Your task to perform on an android device: turn off priority inbox in the gmail app Image 0: 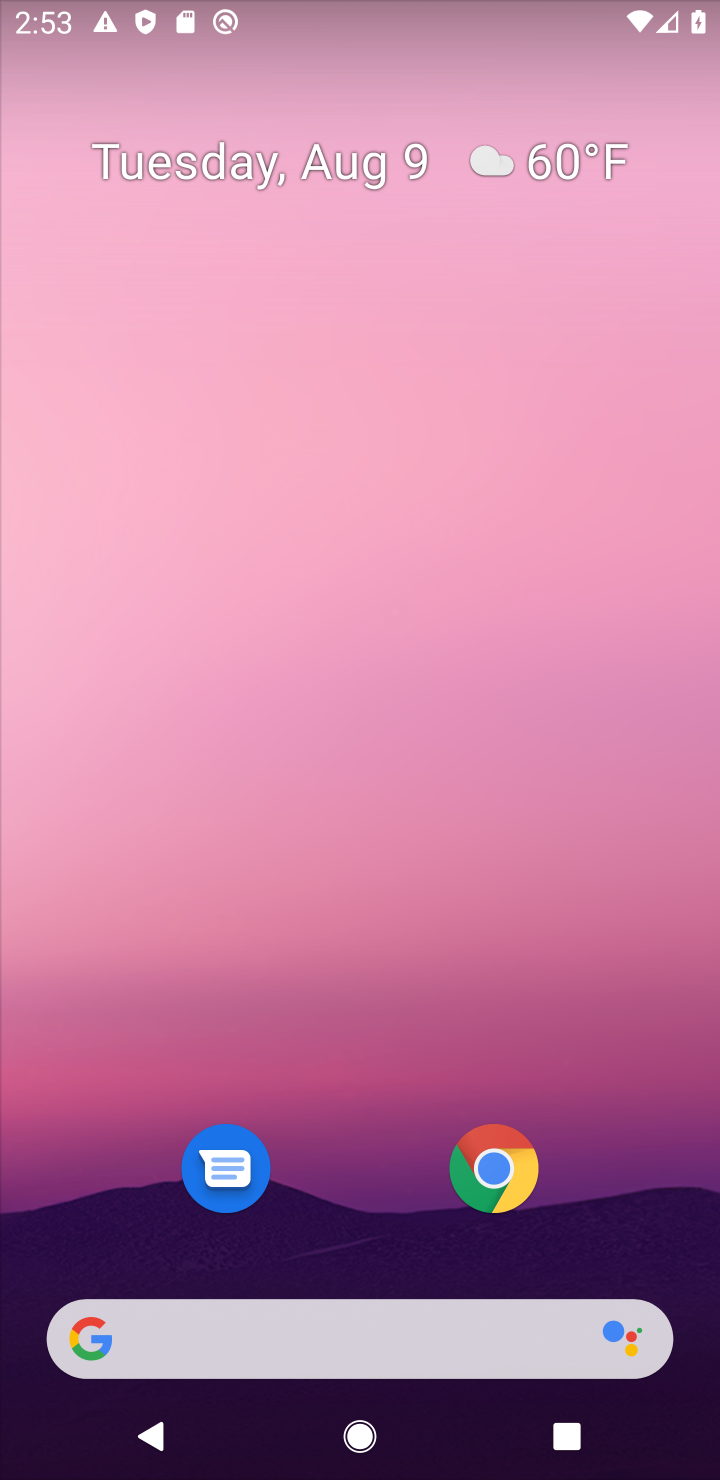
Step 0: drag from (336, 1196) to (104, 149)
Your task to perform on an android device: turn off priority inbox in the gmail app Image 1: 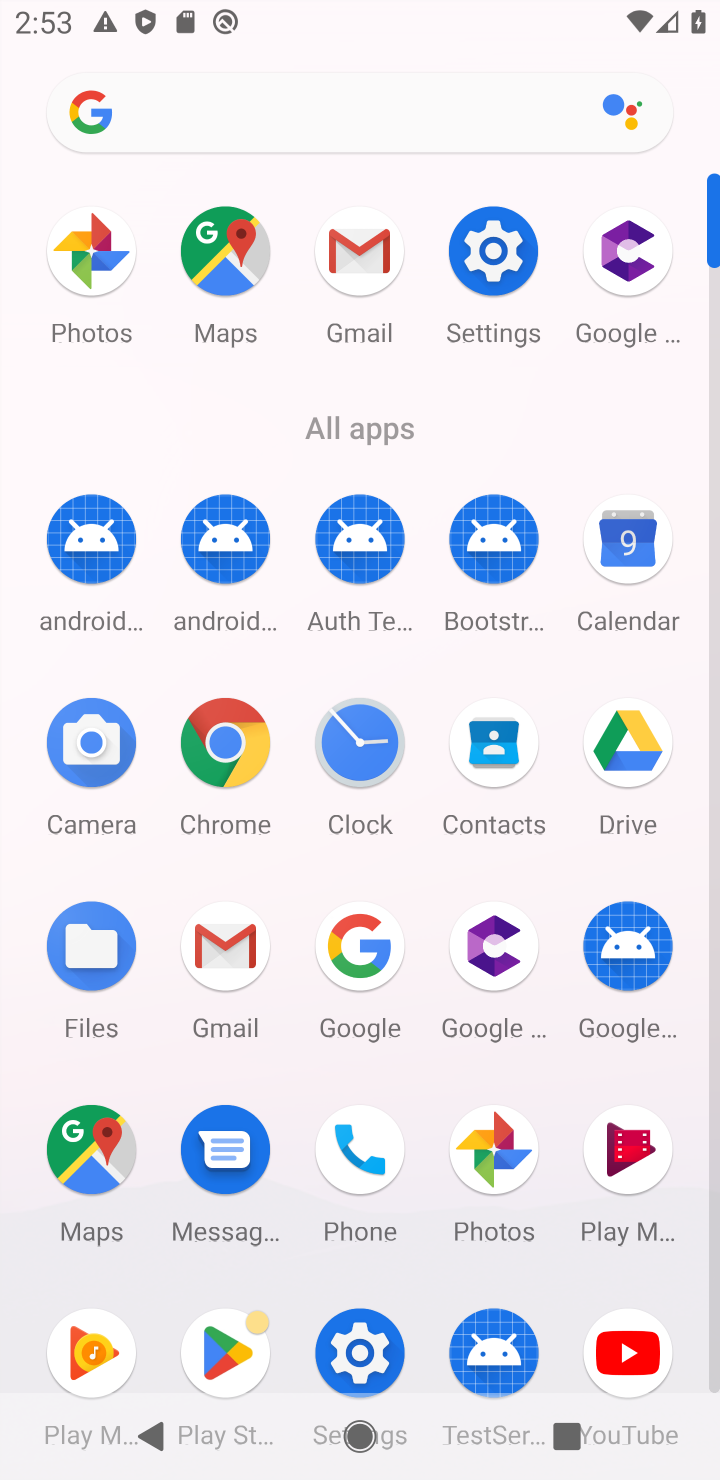
Step 1: click (228, 953)
Your task to perform on an android device: turn off priority inbox in the gmail app Image 2: 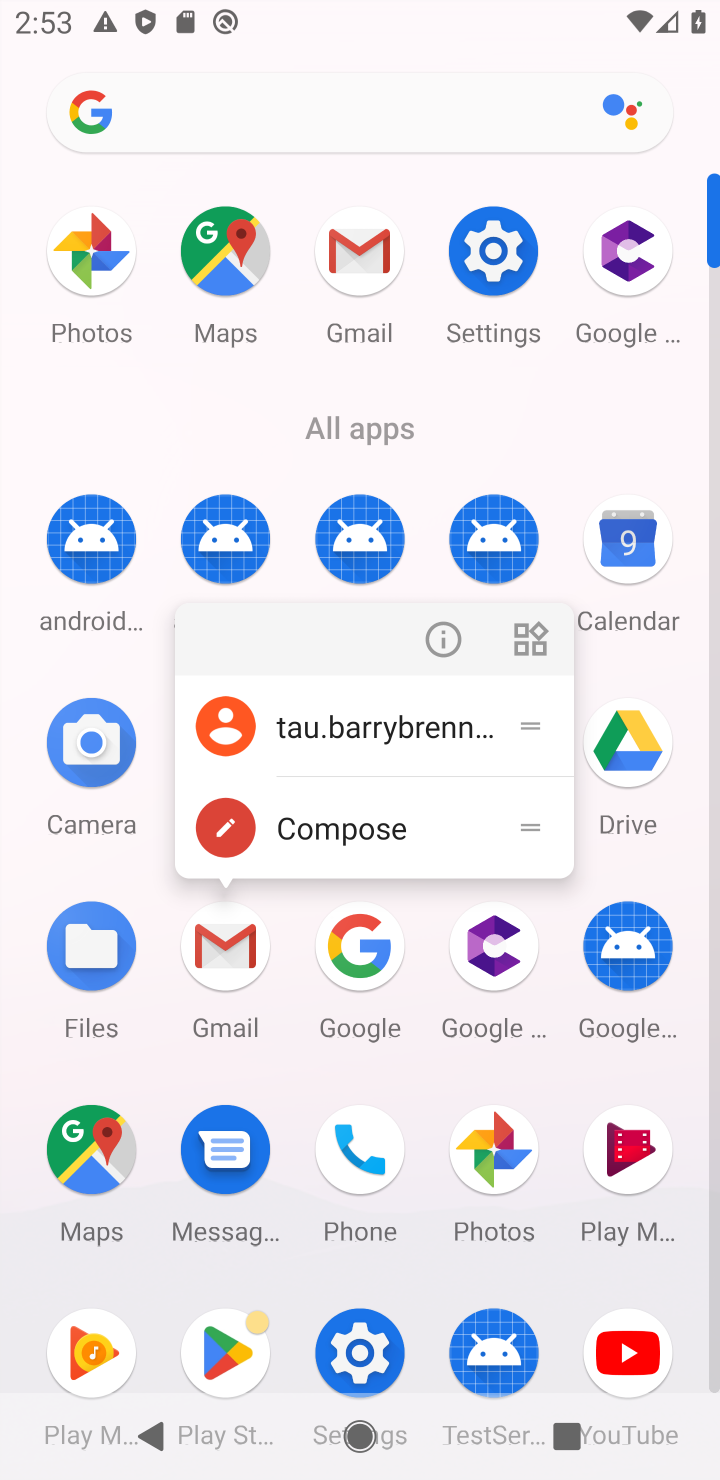
Step 2: click (253, 935)
Your task to perform on an android device: turn off priority inbox in the gmail app Image 3: 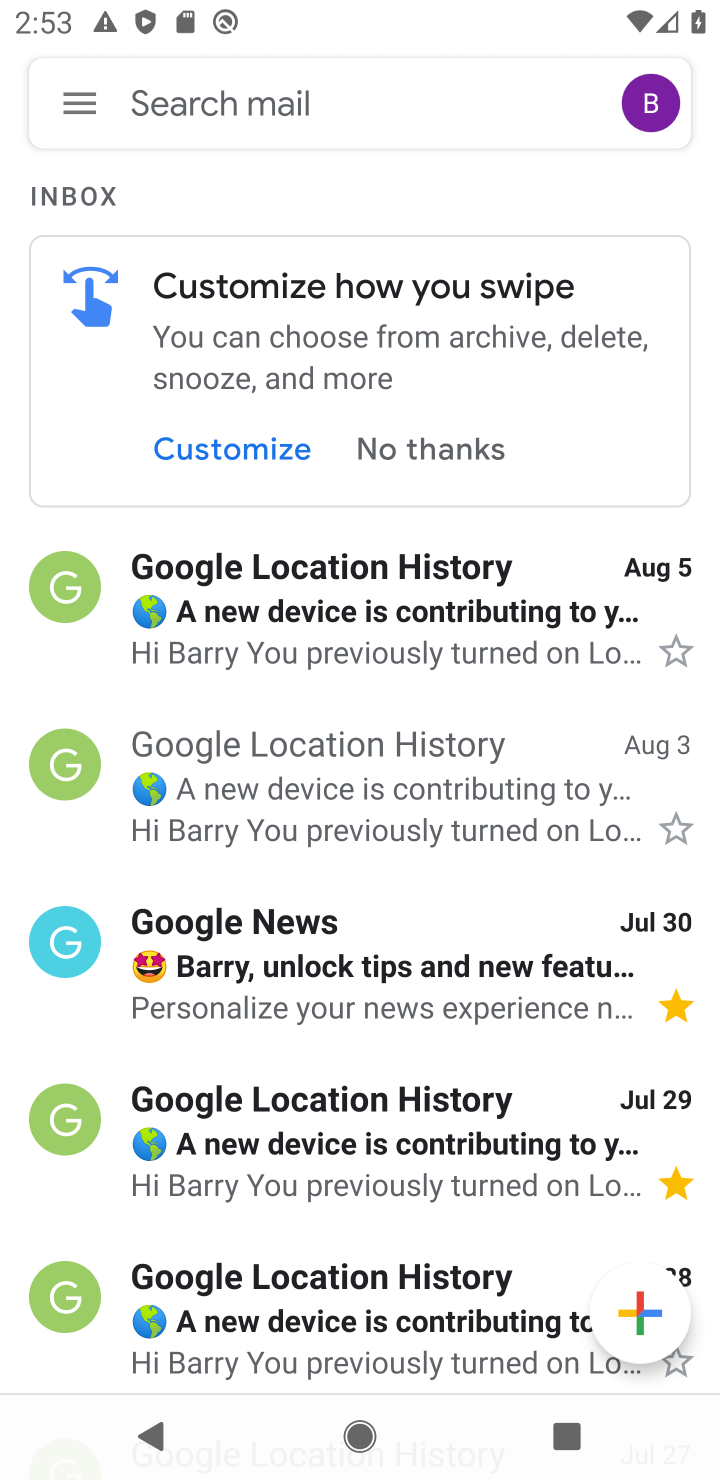
Step 3: click (74, 115)
Your task to perform on an android device: turn off priority inbox in the gmail app Image 4: 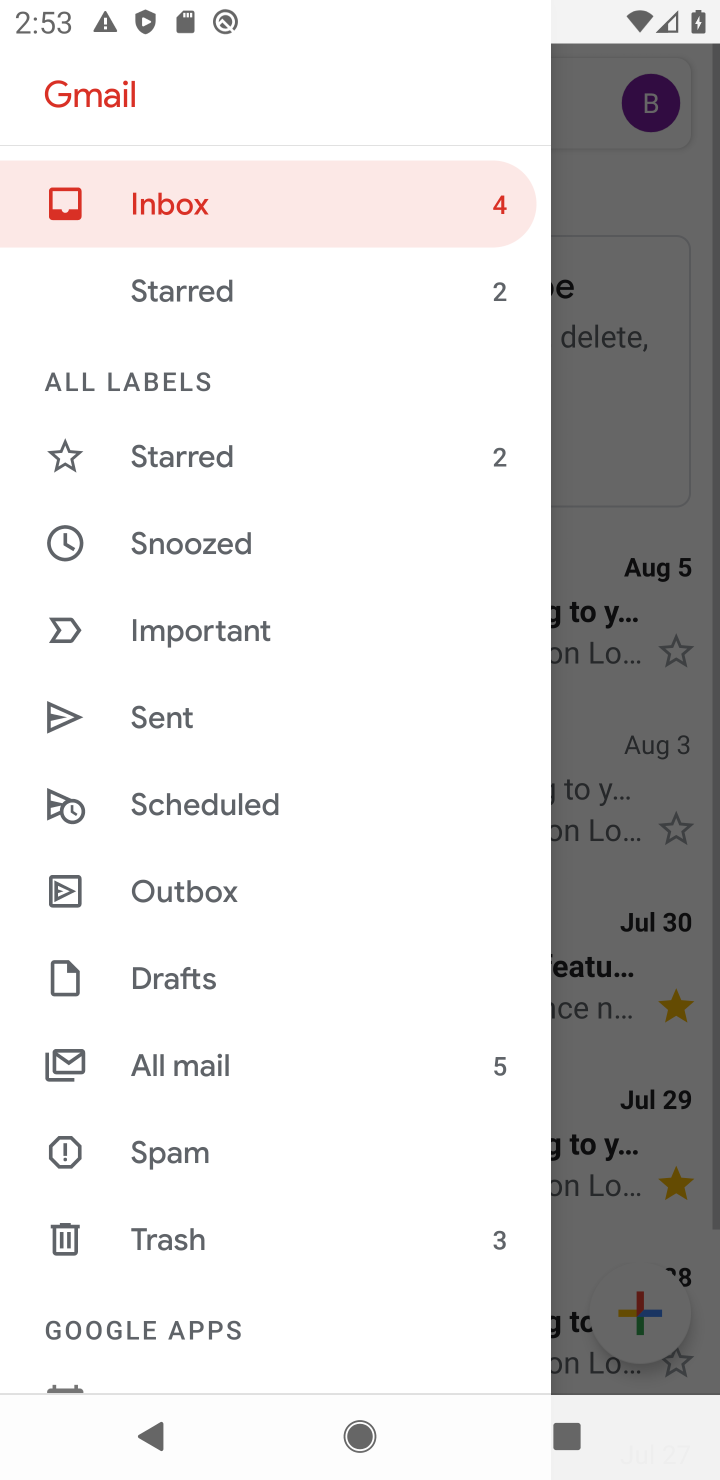
Step 4: drag from (286, 1215) to (292, 584)
Your task to perform on an android device: turn off priority inbox in the gmail app Image 5: 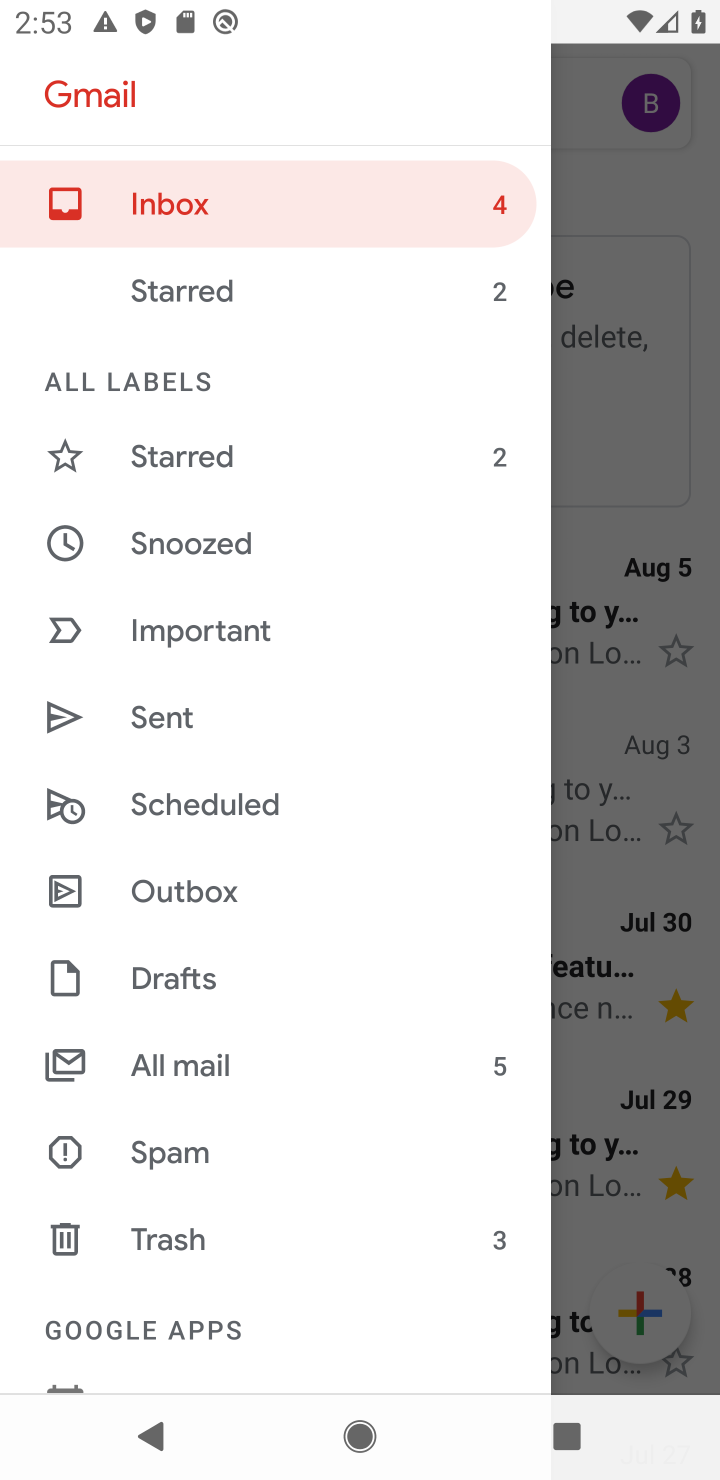
Step 5: drag from (271, 1263) to (154, 537)
Your task to perform on an android device: turn off priority inbox in the gmail app Image 6: 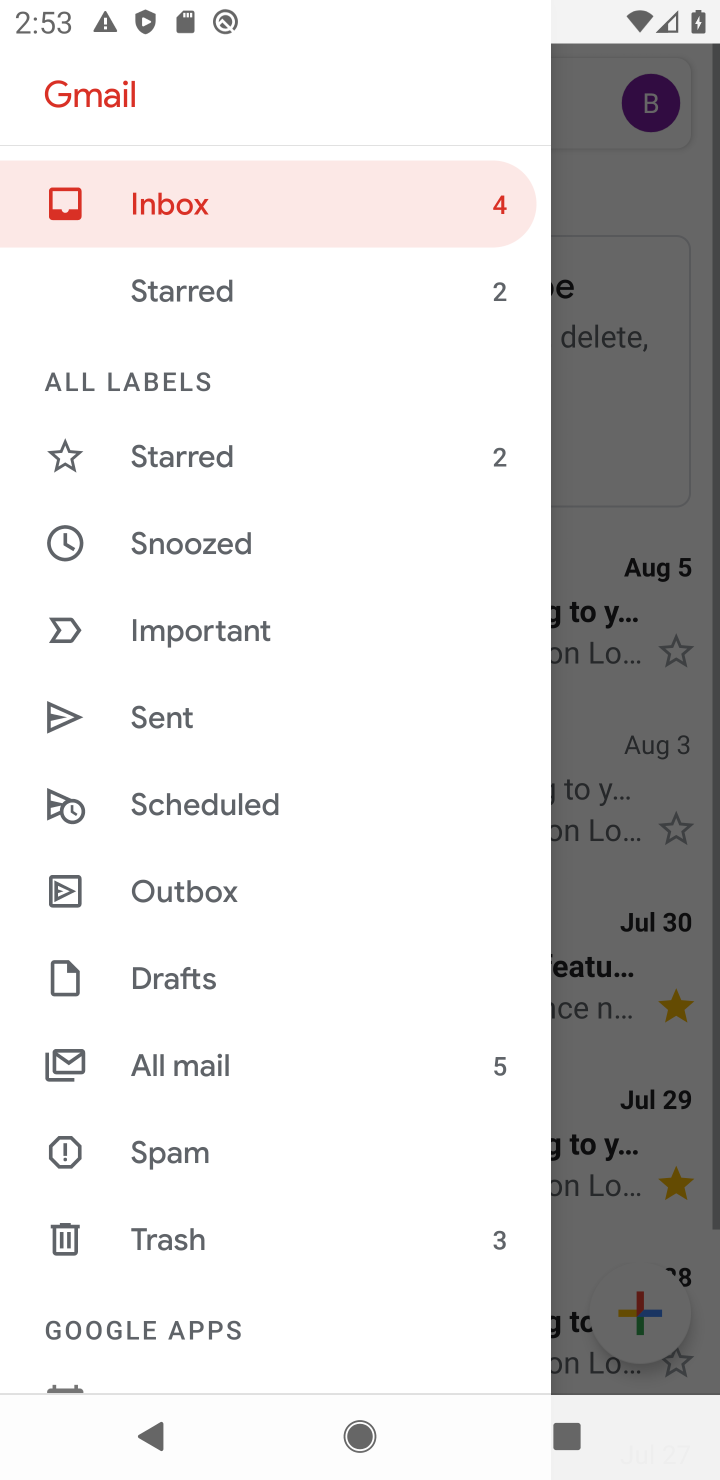
Step 6: drag from (152, 1267) to (157, 82)
Your task to perform on an android device: turn off priority inbox in the gmail app Image 7: 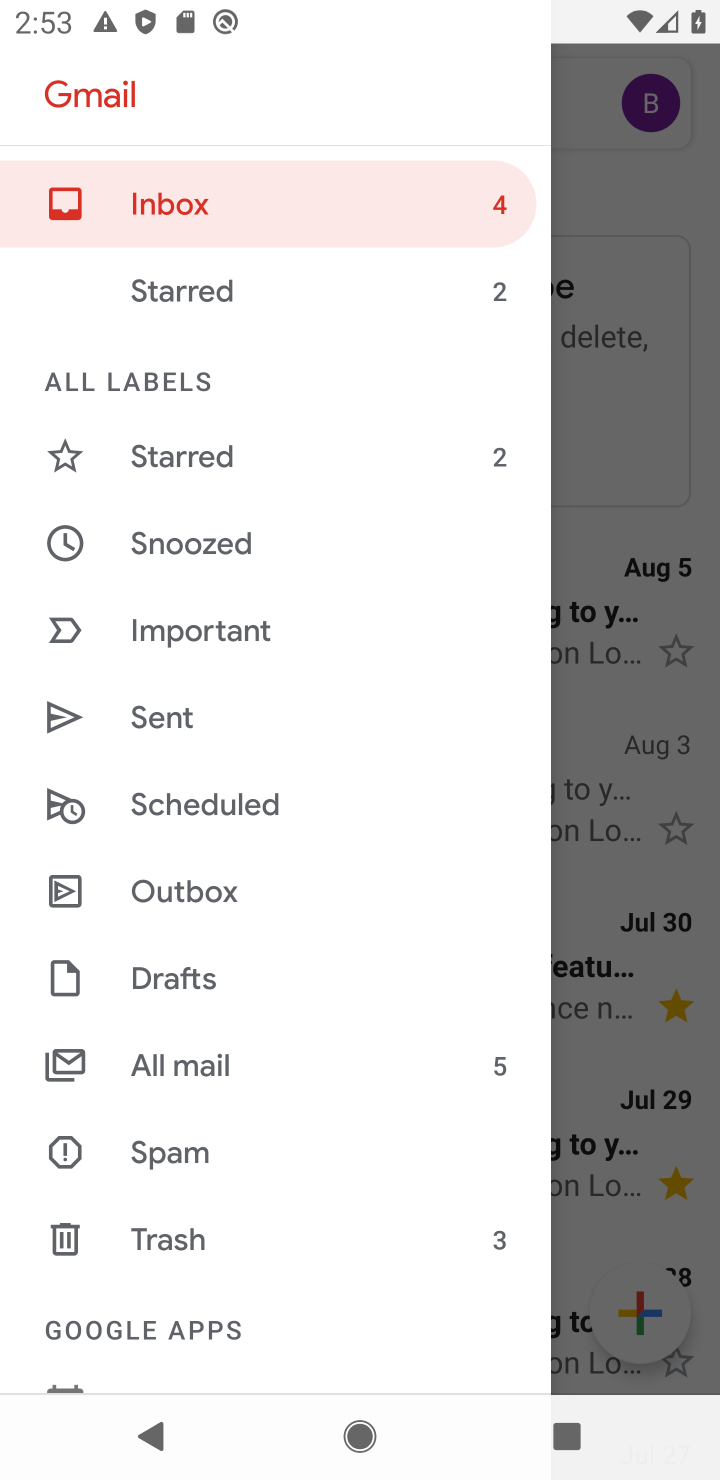
Step 7: drag from (231, 1143) to (279, 387)
Your task to perform on an android device: turn off priority inbox in the gmail app Image 8: 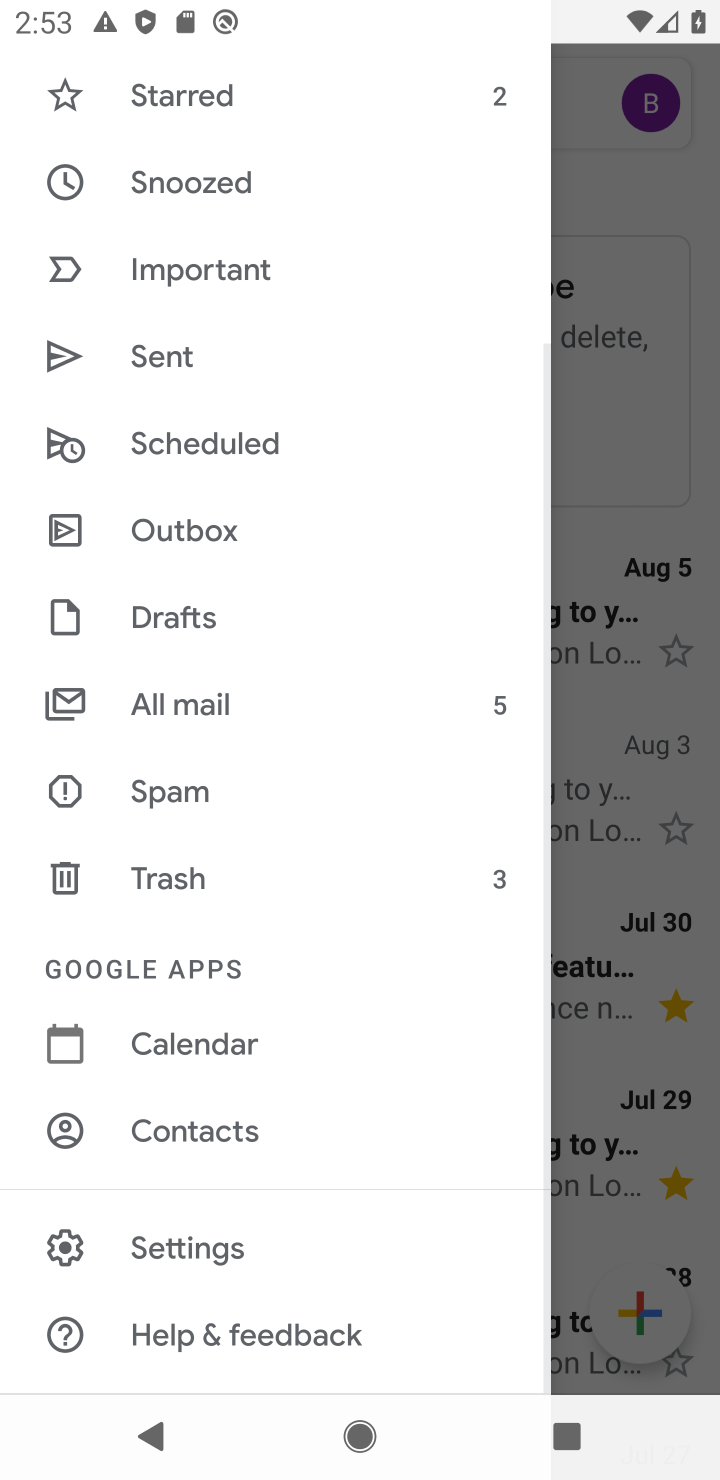
Step 8: click (185, 1229)
Your task to perform on an android device: turn off priority inbox in the gmail app Image 9: 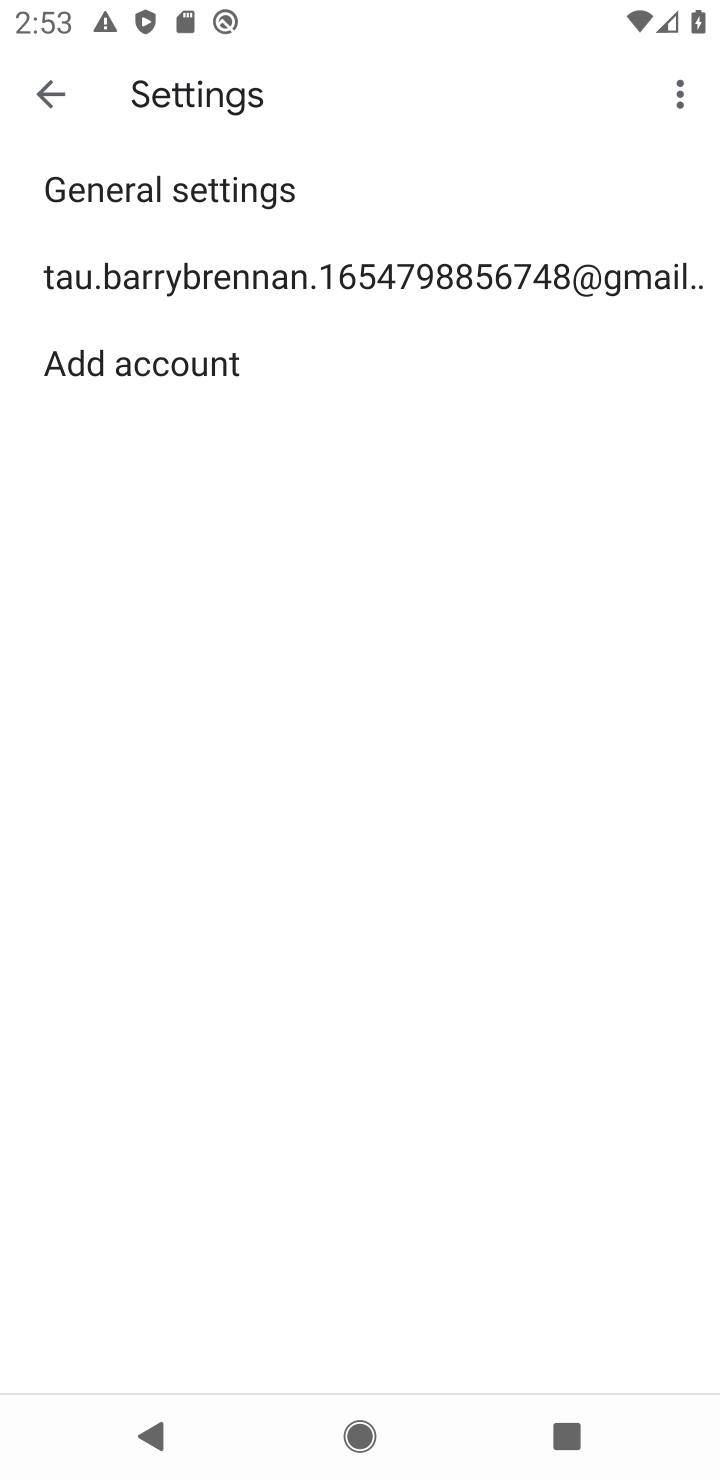
Step 9: click (487, 284)
Your task to perform on an android device: turn off priority inbox in the gmail app Image 10: 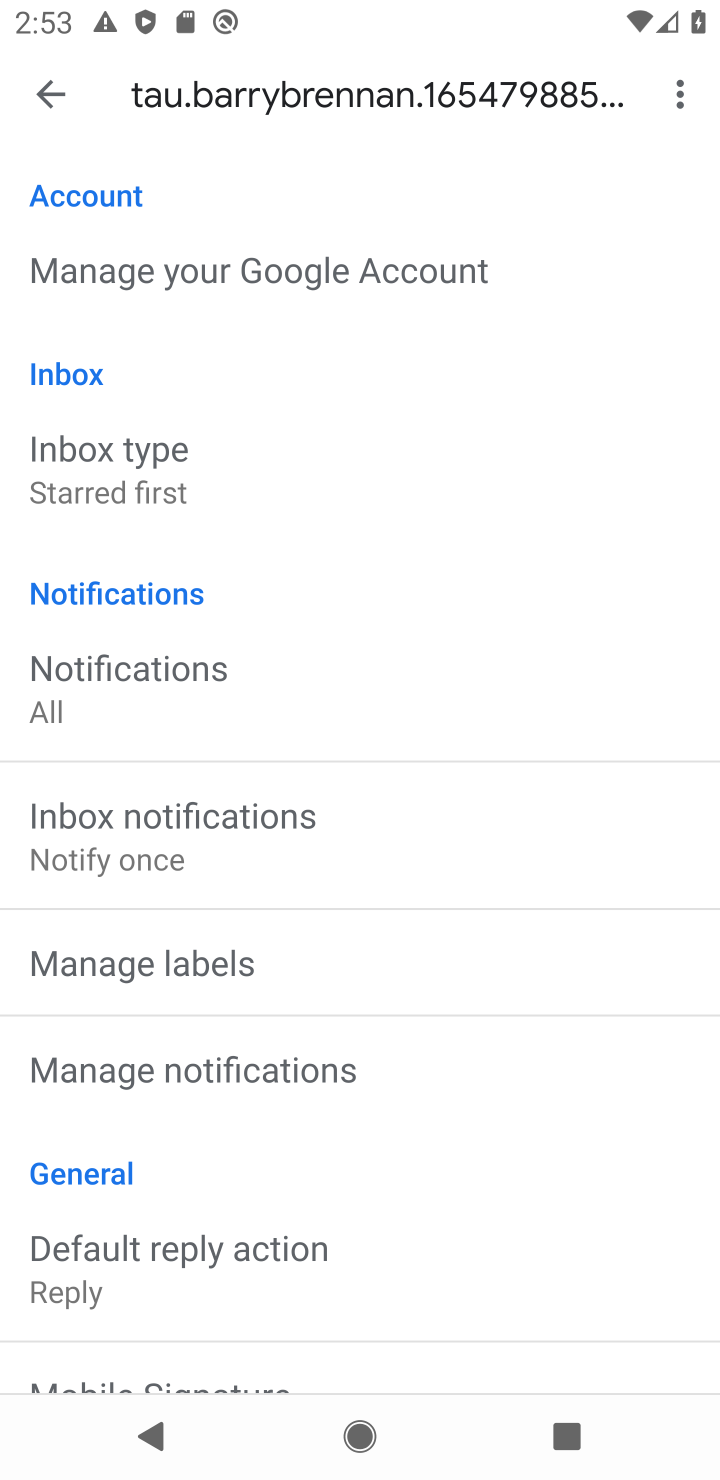
Step 10: click (73, 456)
Your task to perform on an android device: turn off priority inbox in the gmail app Image 11: 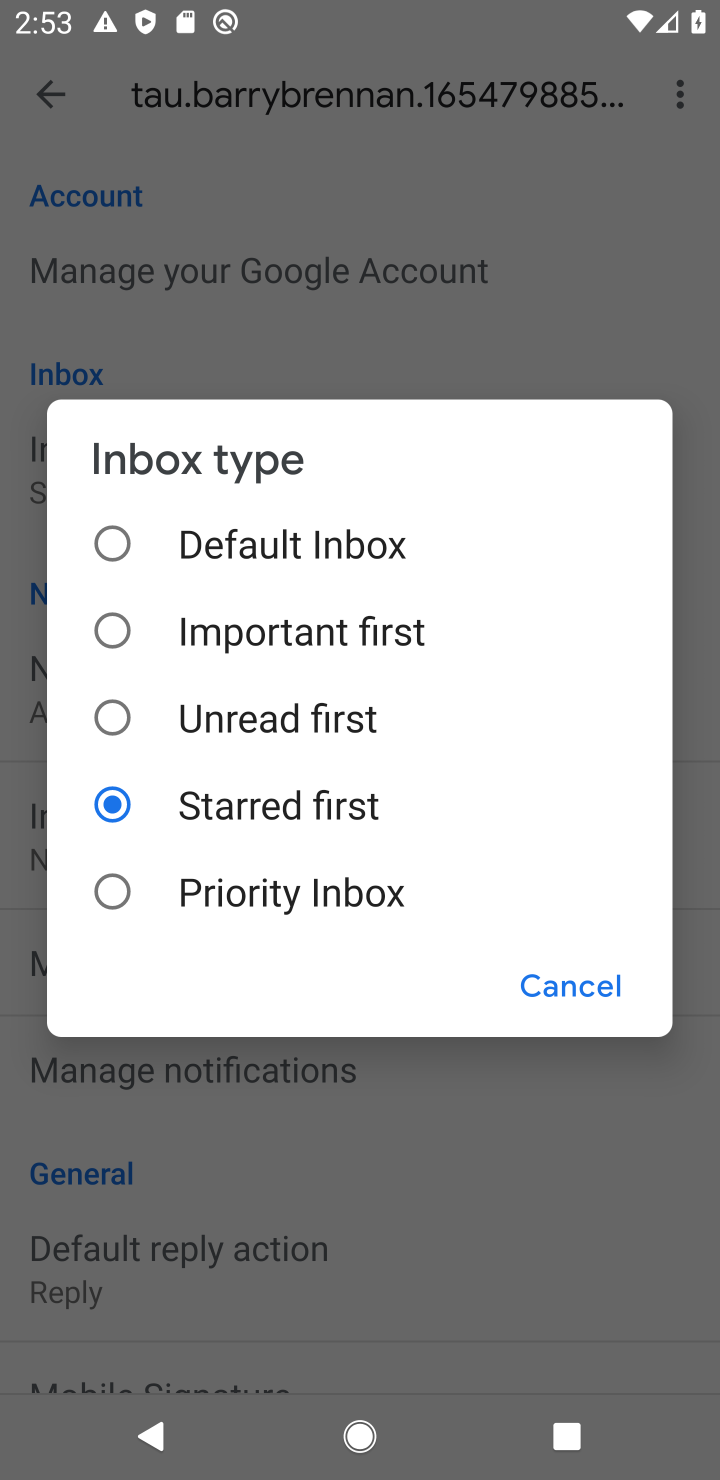
Step 11: task complete